Your task to perform on an android device: Check the settings for the Amazon Prime Video app Image 0: 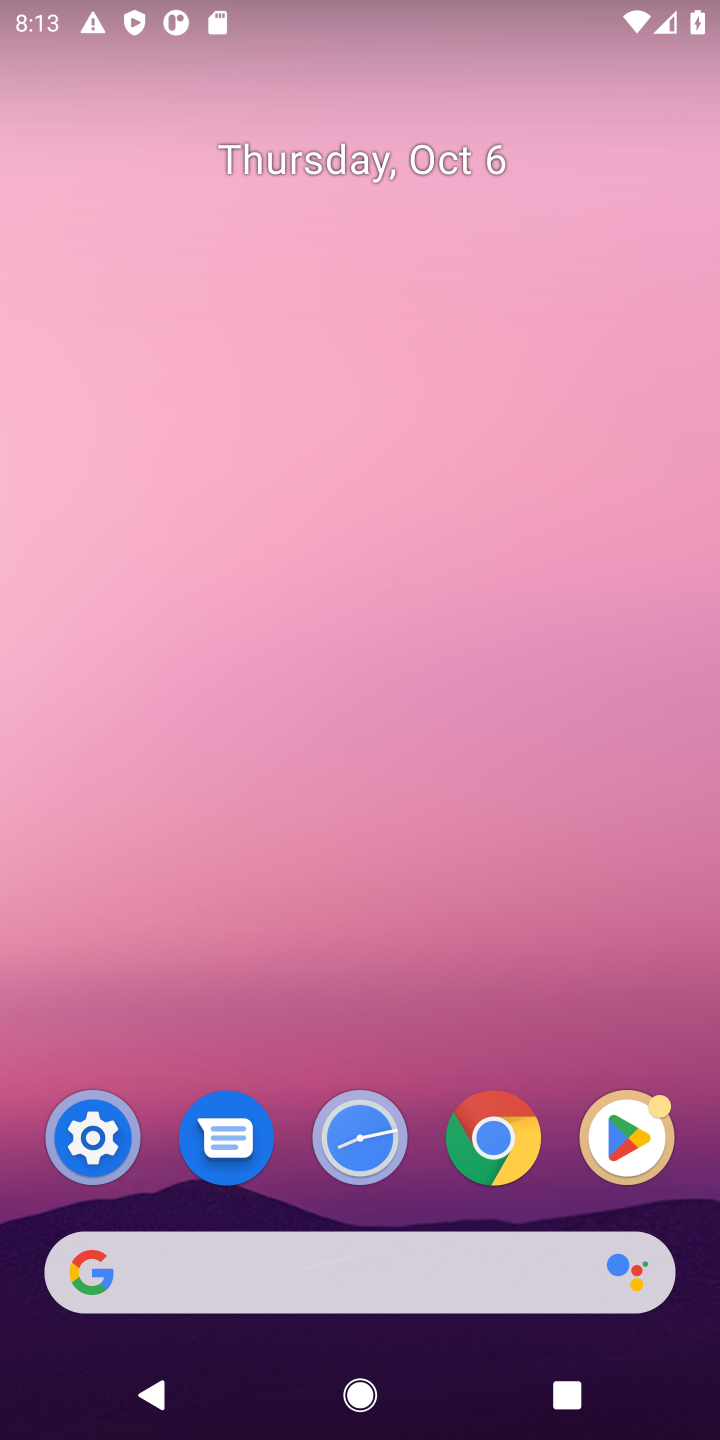
Step 0: click (234, 1281)
Your task to perform on an android device: Check the settings for the Amazon Prime Video app Image 1: 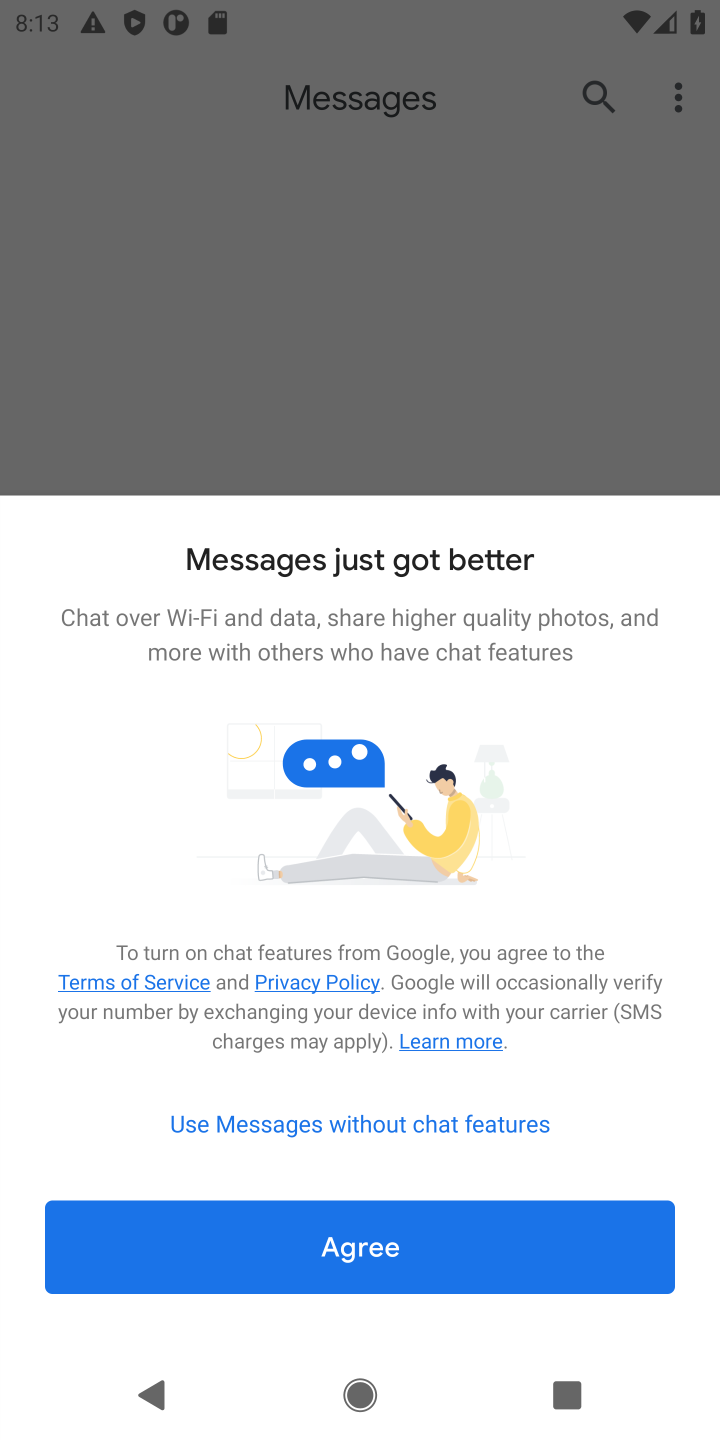
Step 1: press home button
Your task to perform on an android device: Check the settings for the Amazon Prime Video app Image 2: 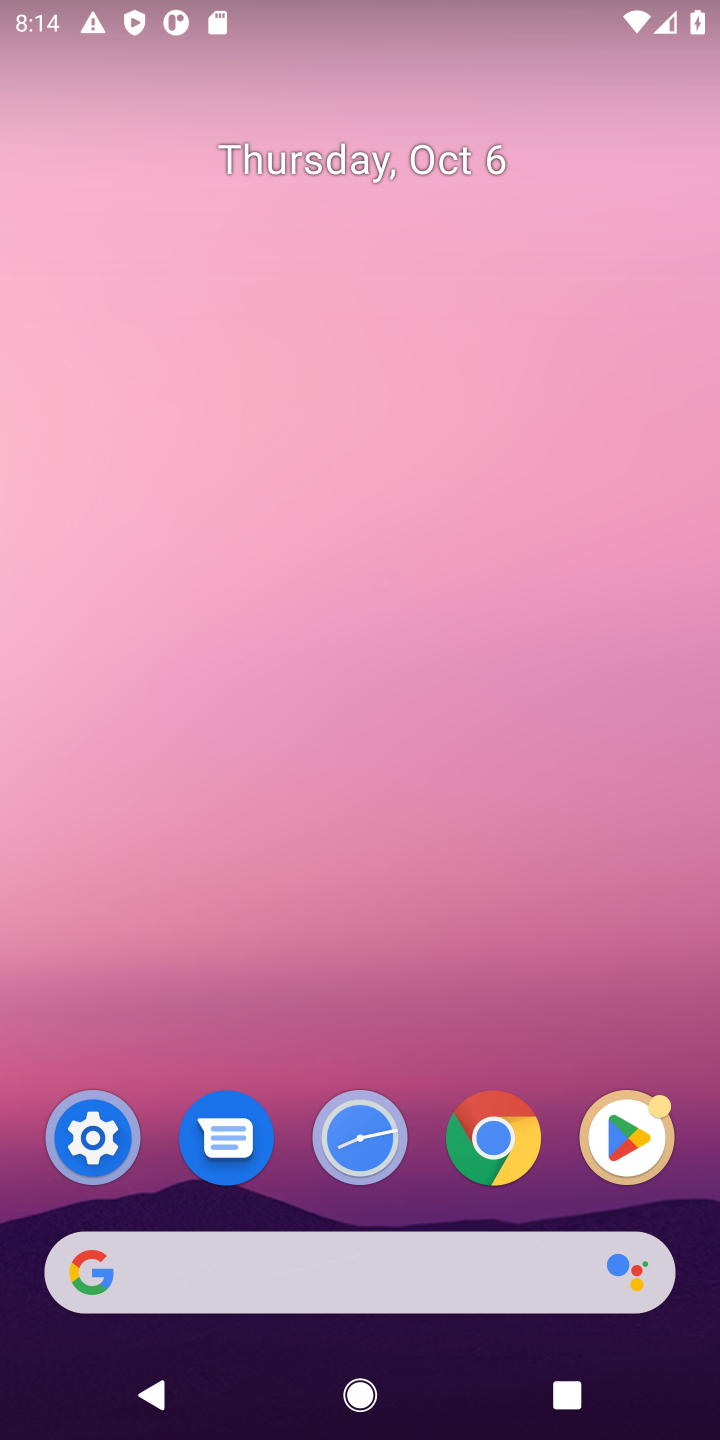
Step 2: drag from (249, 1213) to (265, 333)
Your task to perform on an android device: Check the settings for the Amazon Prime Video app Image 3: 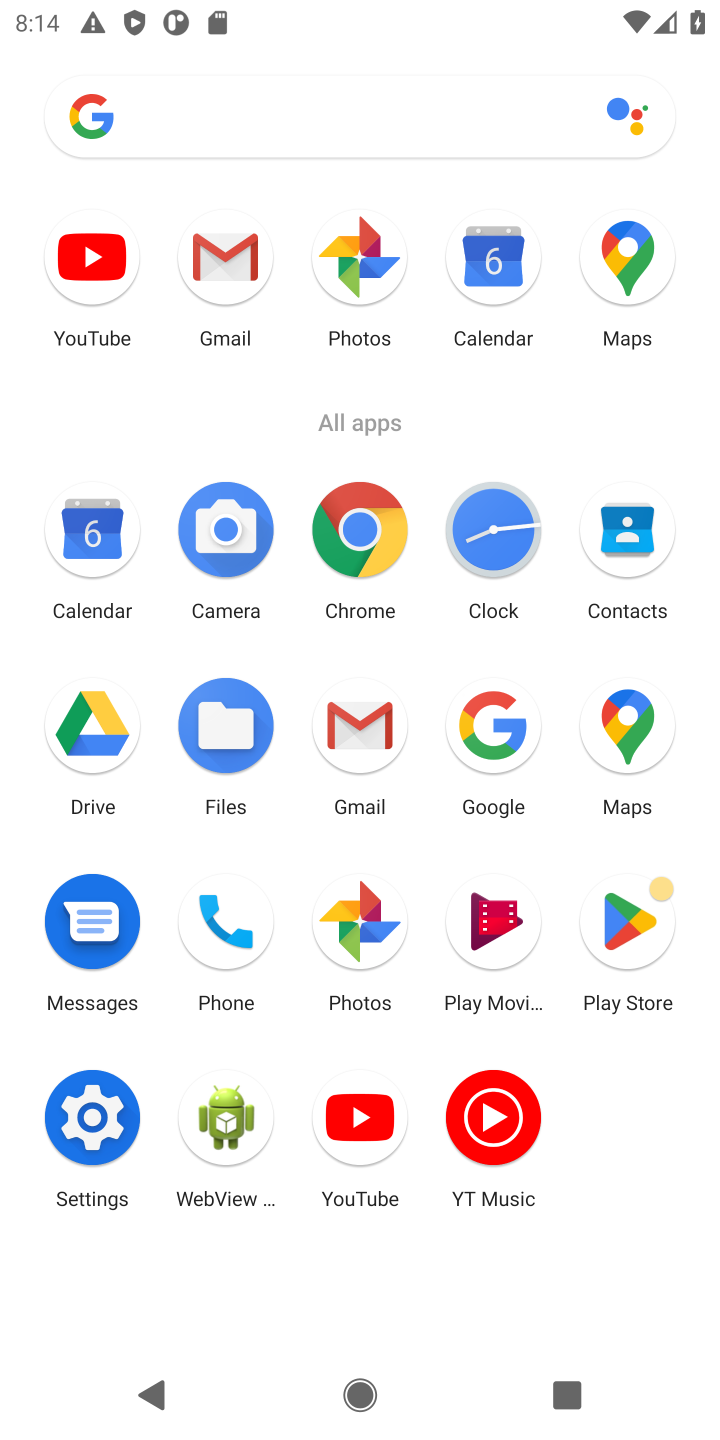
Step 3: click (619, 878)
Your task to perform on an android device: Check the settings for the Amazon Prime Video app Image 4: 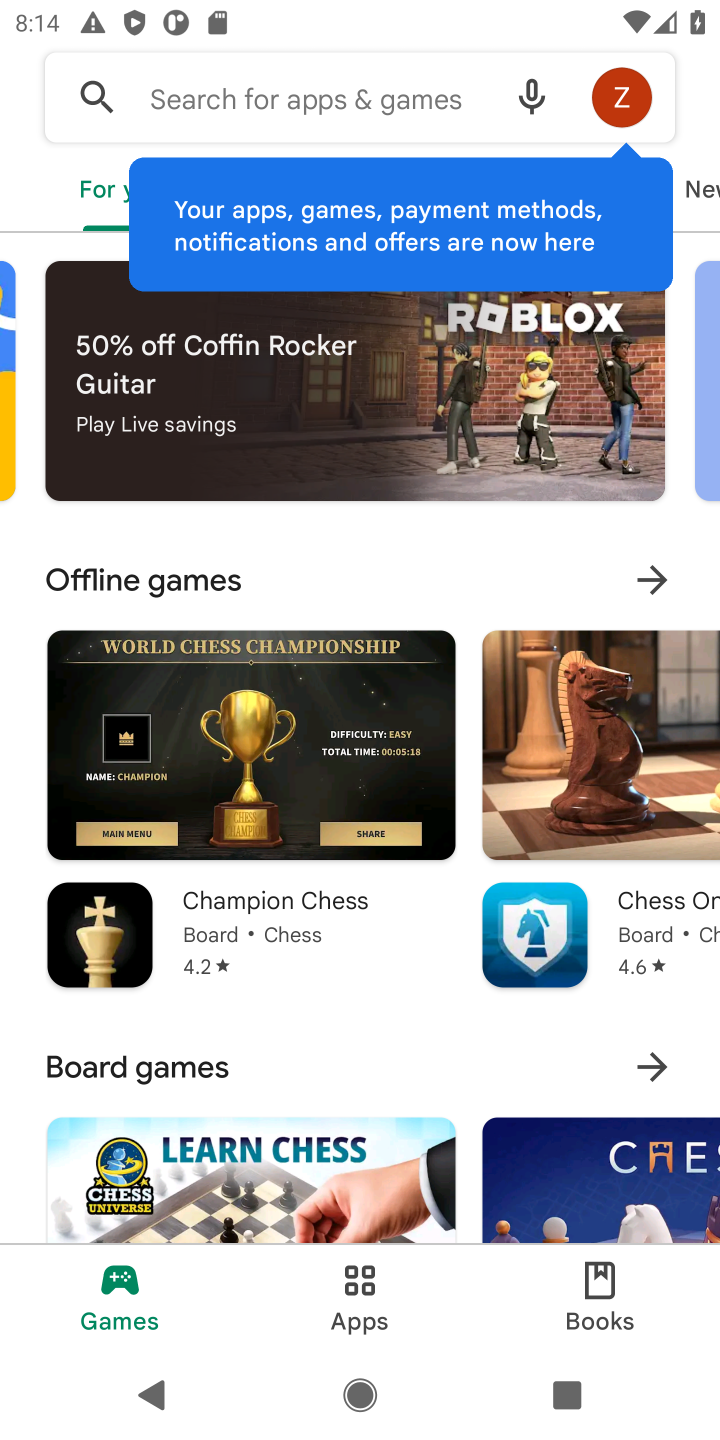
Step 4: click (320, 73)
Your task to perform on an android device: Check the settings for the Amazon Prime Video app Image 5: 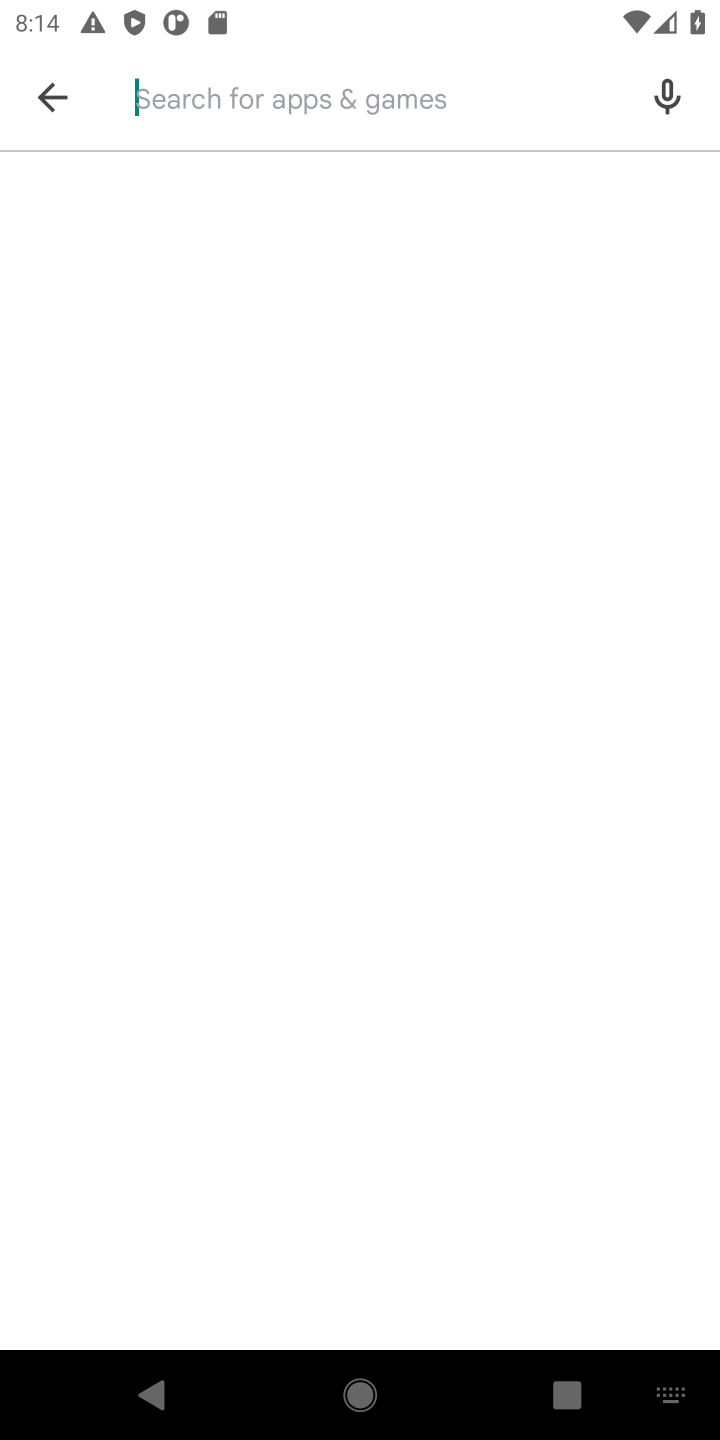
Step 5: type "Amazon Prime Video app"
Your task to perform on an android device: Check the settings for the Amazon Prime Video app Image 6: 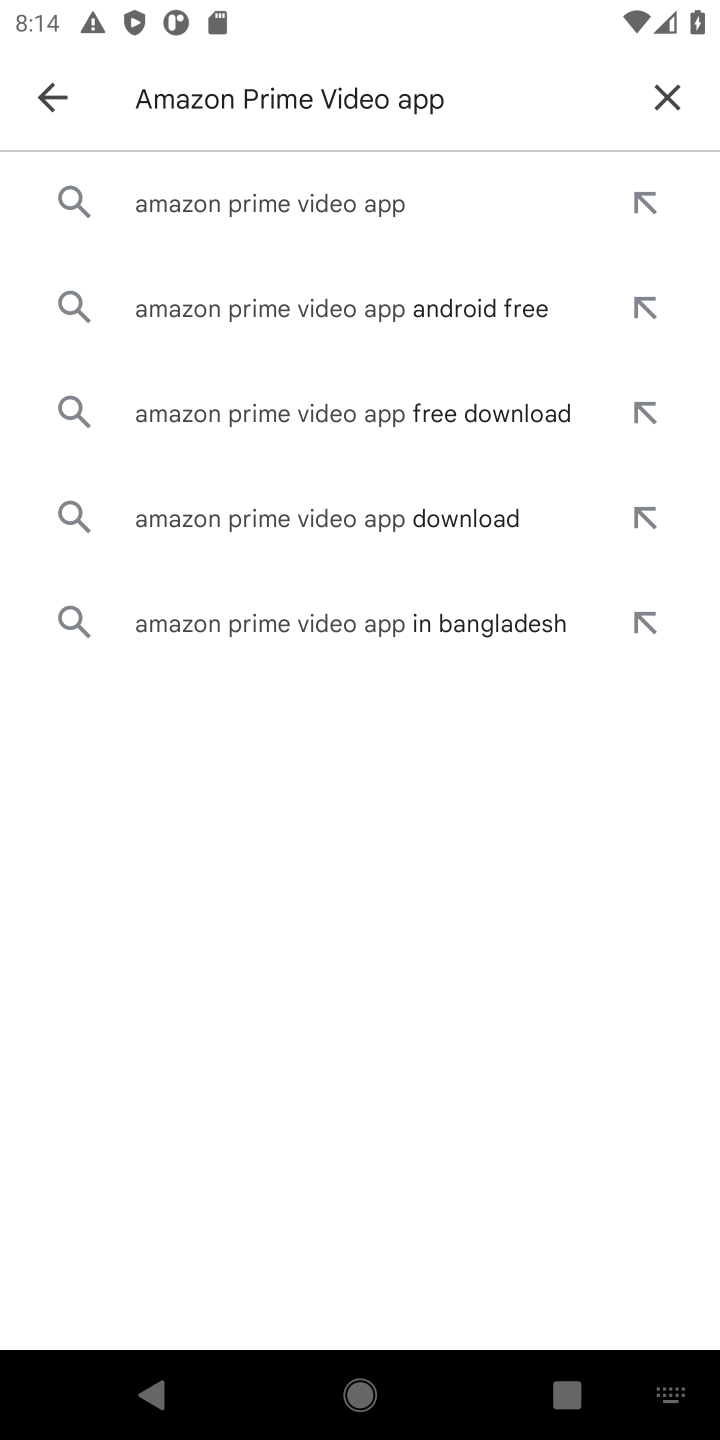
Step 6: click (390, 209)
Your task to perform on an android device: Check the settings for the Amazon Prime Video app Image 7: 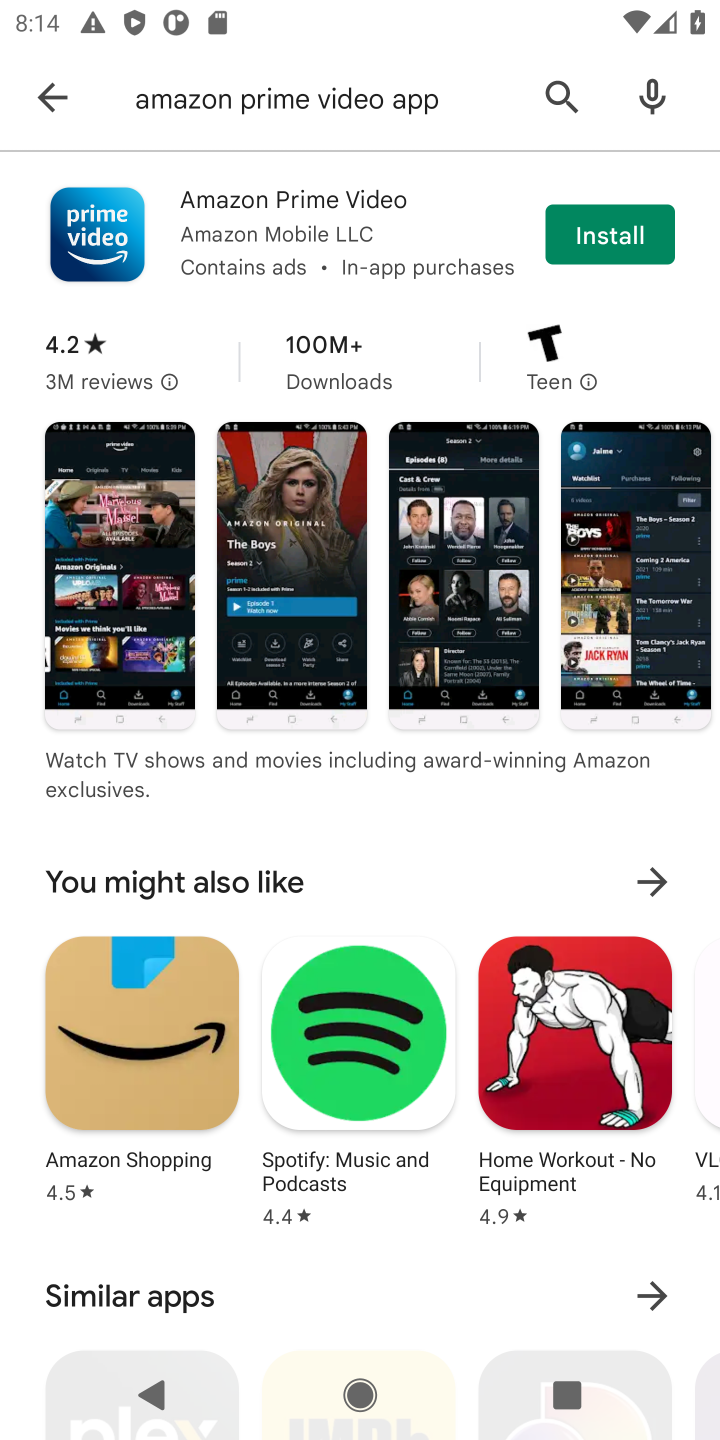
Step 7: click (544, 239)
Your task to perform on an android device: Check the settings for the Amazon Prime Video app Image 8: 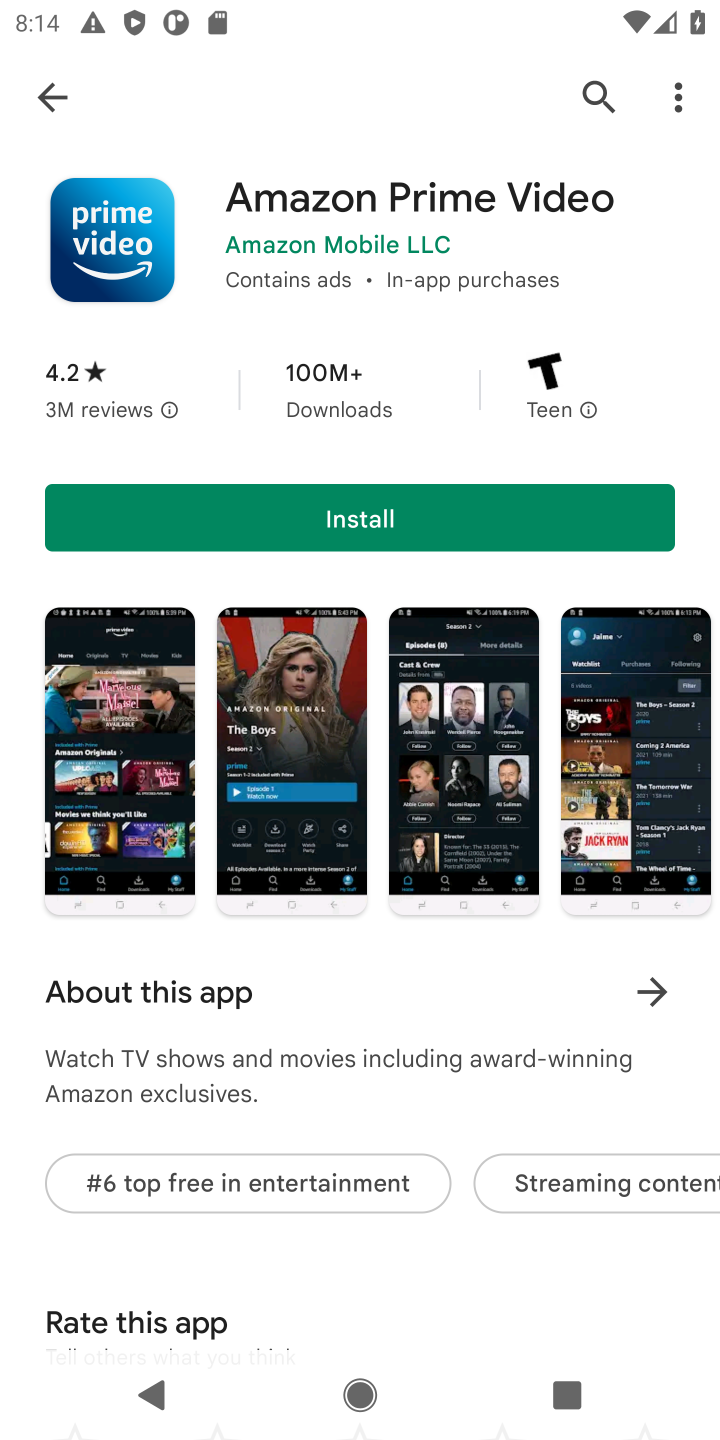
Step 8: click (431, 502)
Your task to perform on an android device: Check the settings for the Amazon Prime Video app Image 9: 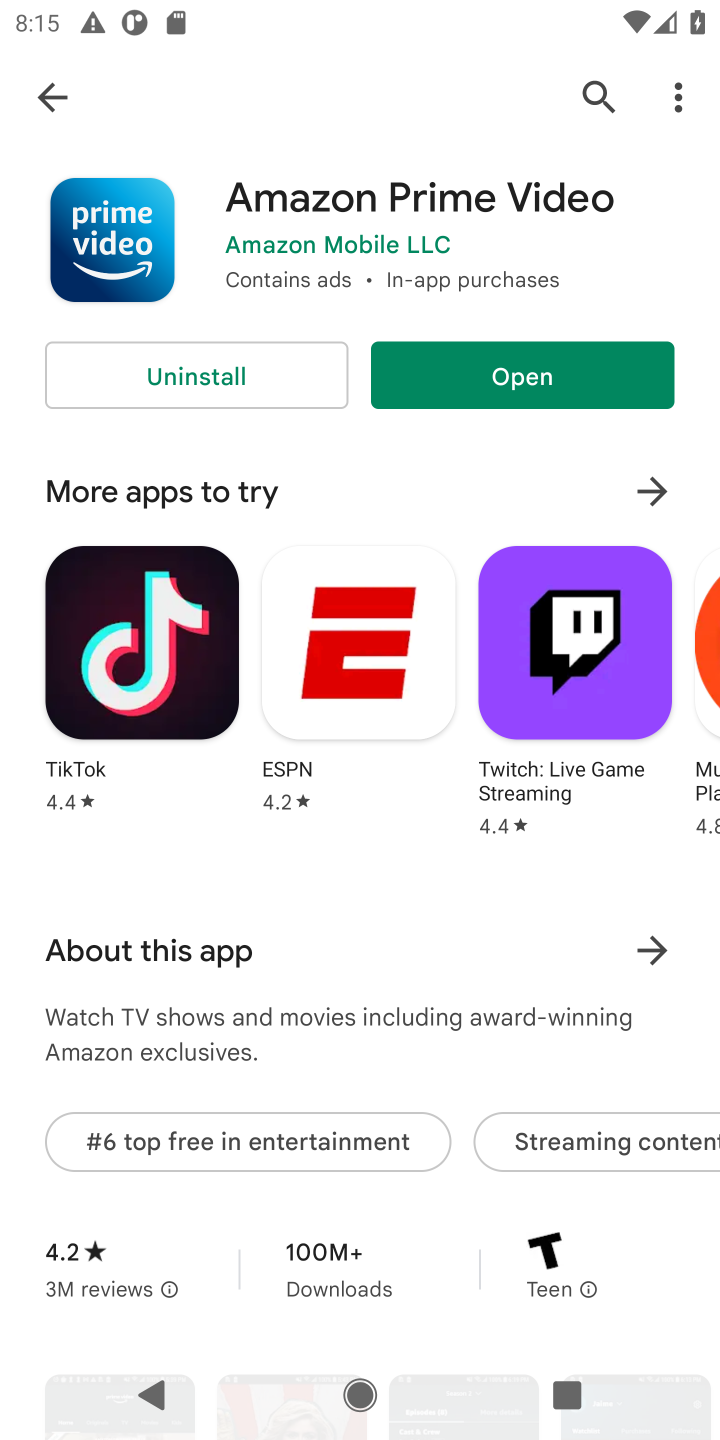
Step 9: click (461, 381)
Your task to perform on an android device: Check the settings for the Amazon Prime Video app Image 10: 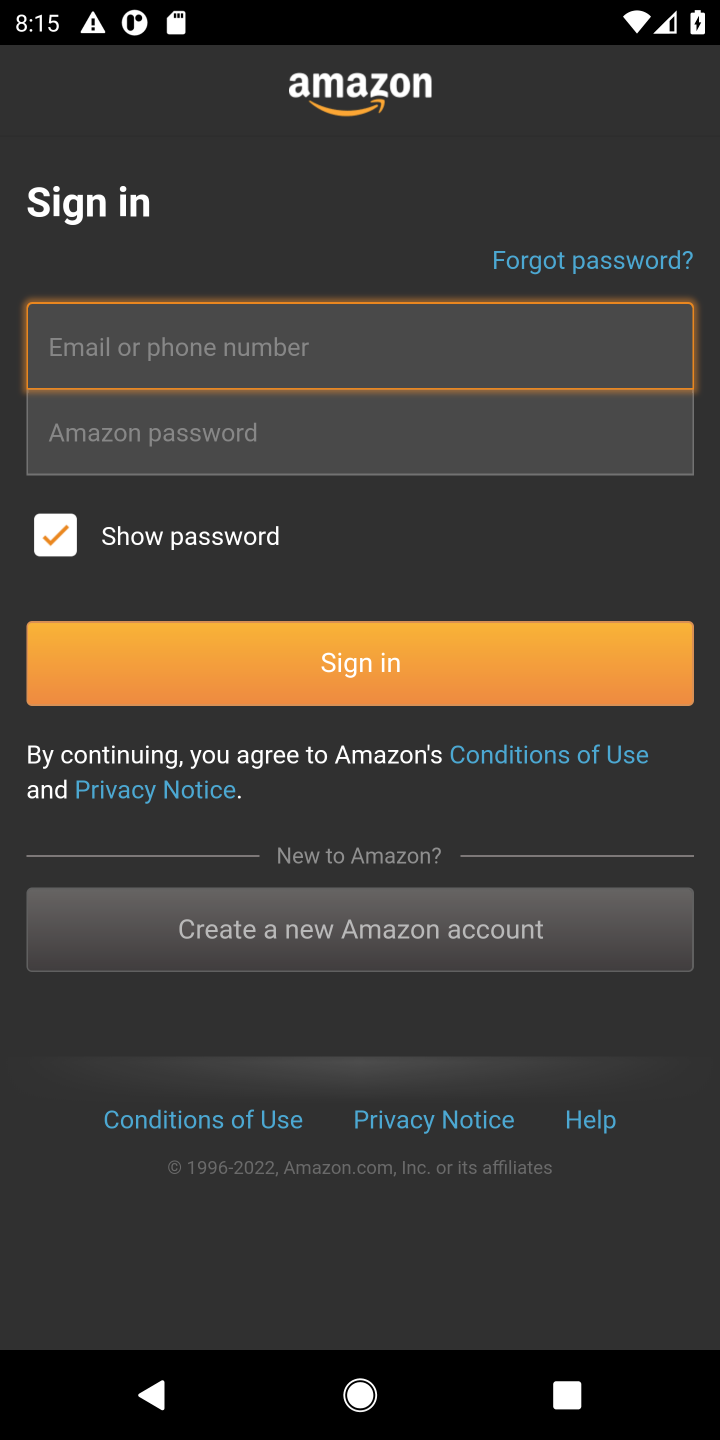
Step 10: task complete